Your task to perform on an android device: turn on wifi Image 0: 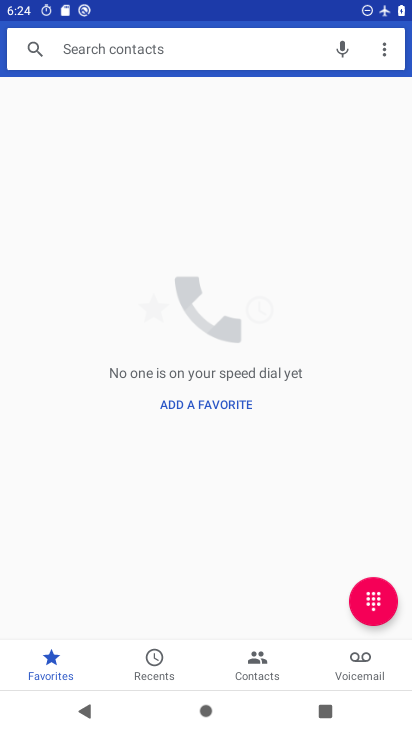
Step 0: press home button
Your task to perform on an android device: turn on wifi Image 1: 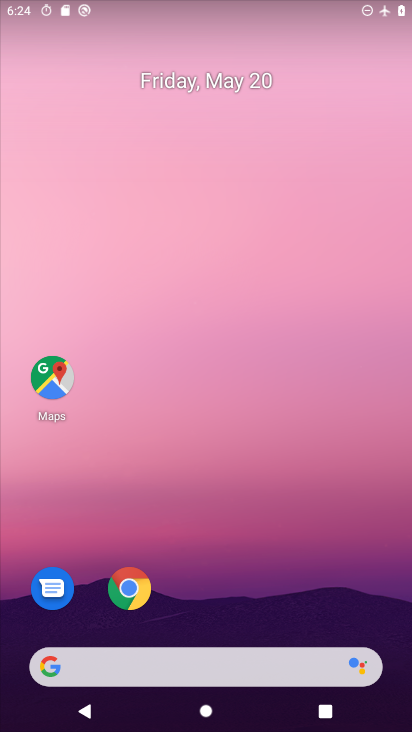
Step 1: drag from (230, 597) to (213, 225)
Your task to perform on an android device: turn on wifi Image 2: 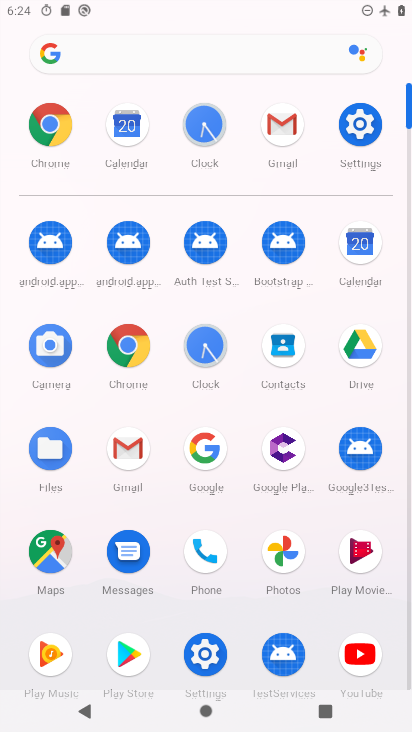
Step 2: click (356, 153)
Your task to perform on an android device: turn on wifi Image 3: 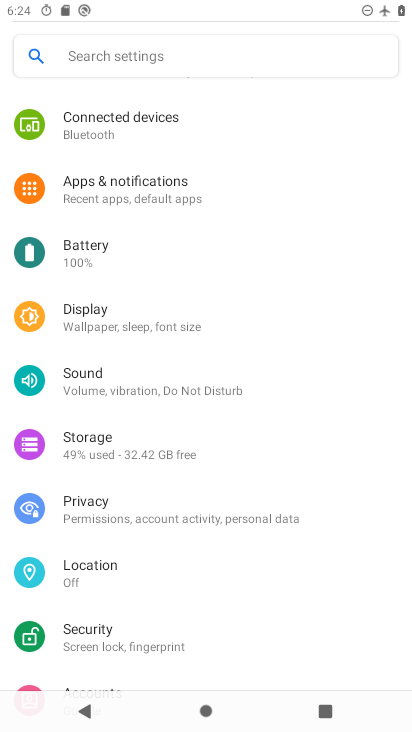
Step 3: drag from (178, 163) to (178, 492)
Your task to perform on an android device: turn on wifi Image 4: 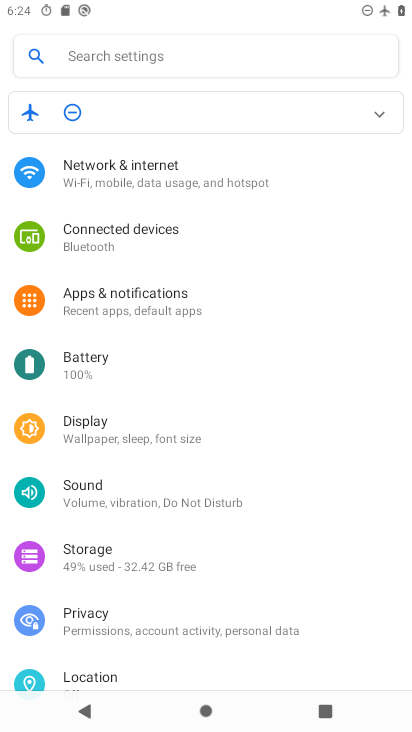
Step 4: click (76, 179)
Your task to perform on an android device: turn on wifi Image 5: 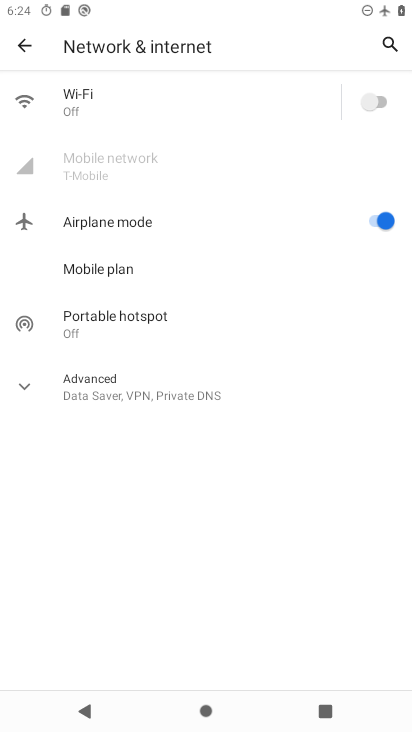
Step 5: click (382, 105)
Your task to perform on an android device: turn on wifi Image 6: 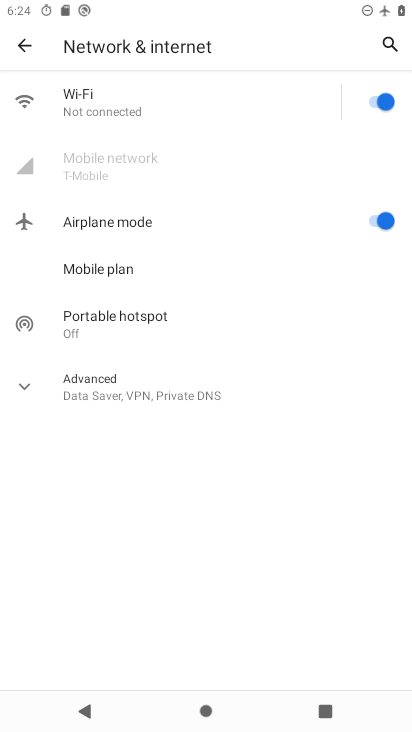
Step 6: task complete